Your task to perform on an android device: What's the weather going to be this weekend? Image 0: 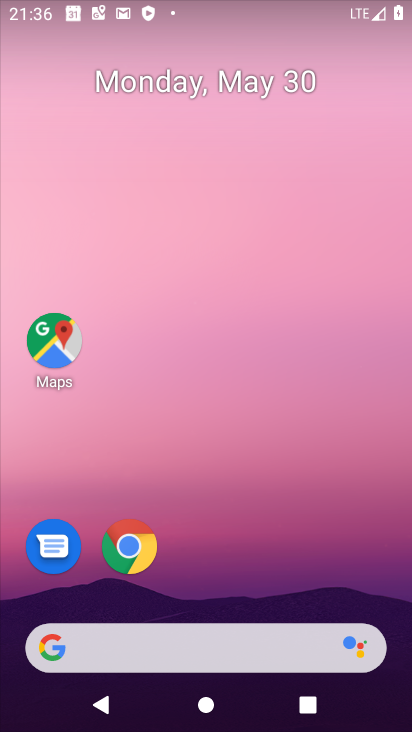
Step 0: drag from (343, 570) to (316, 296)
Your task to perform on an android device: What's the weather going to be this weekend? Image 1: 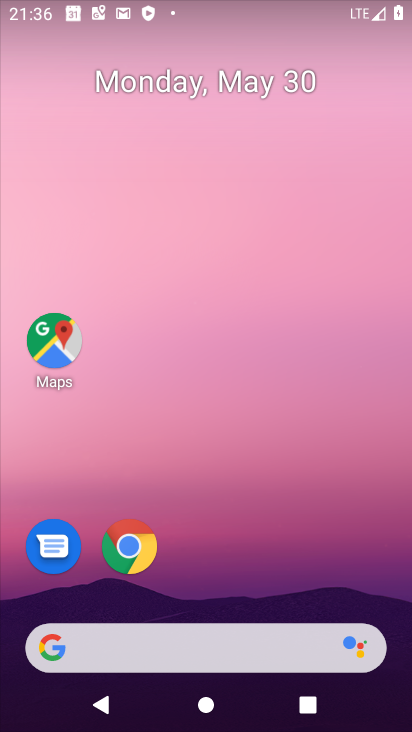
Step 1: drag from (352, 597) to (349, 90)
Your task to perform on an android device: What's the weather going to be this weekend? Image 2: 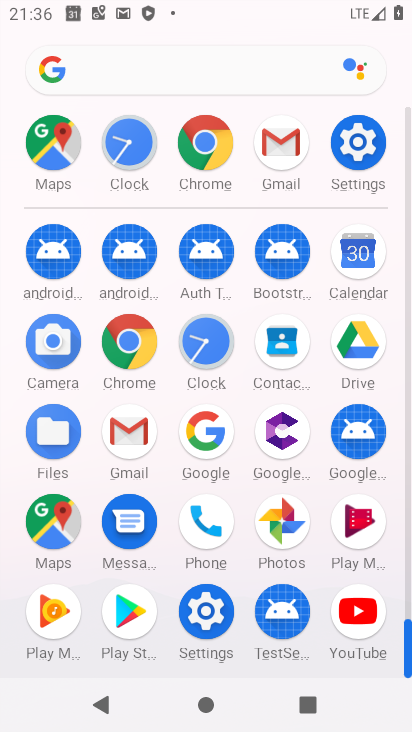
Step 2: click (146, 342)
Your task to perform on an android device: What's the weather going to be this weekend? Image 3: 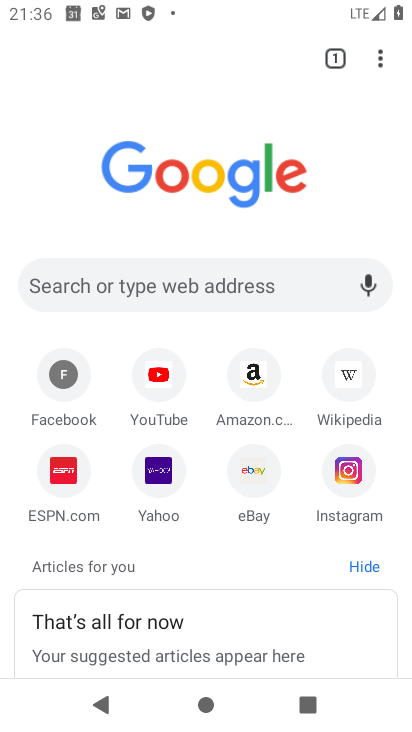
Step 3: click (198, 279)
Your task to perform on an android device: What's the weather going to be this weekend? Image 4: 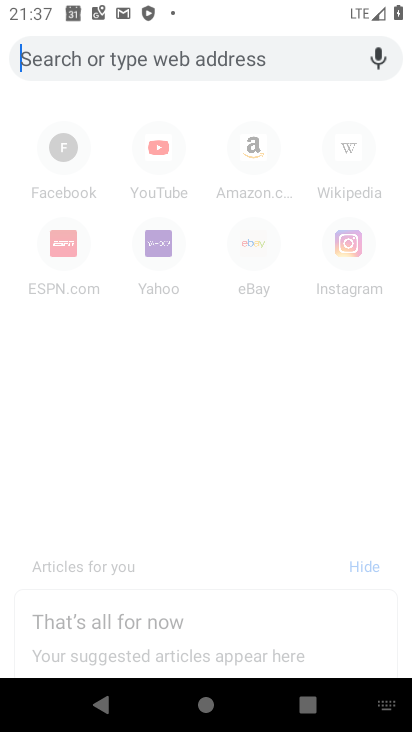
Step 4: type "what's the weather going to be this weekend "
Your task to perform on an android device: What's the weather going to be this weekend? Image 5: 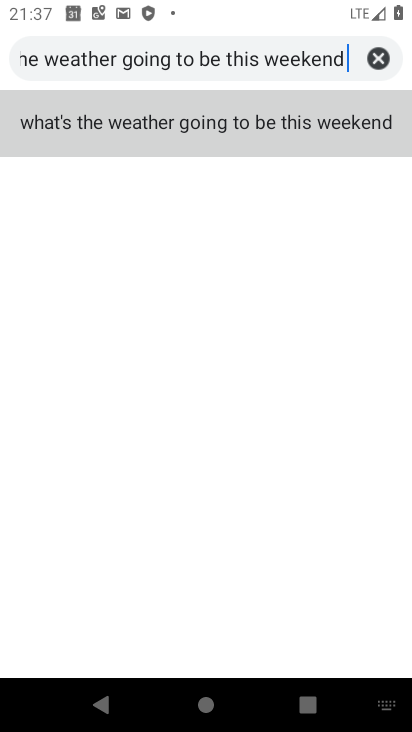
Step 5: click (184, 141)
Your task to perform on an android device: What's the weather going to be this weekend? Image 6: 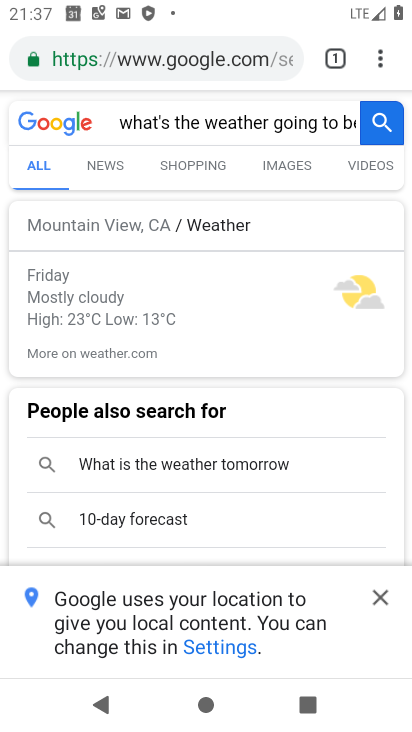
Step 6: click (387, 595)
Your task to perform on an android device: What's the weather going to be this weekend? Image 7: 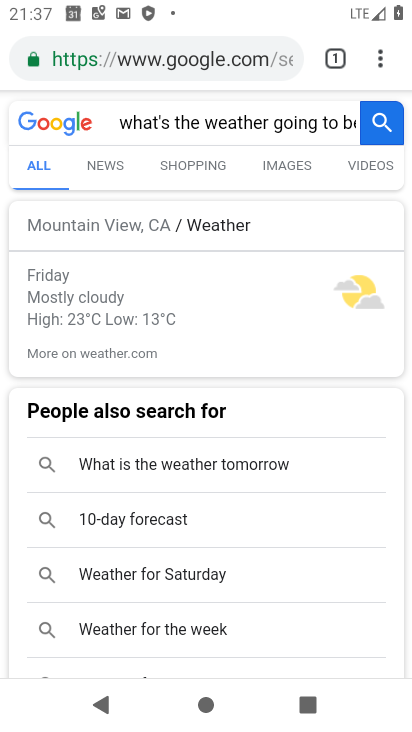
Step 7: task complete